Your task to perform on an android device: Go to Android settings Image 0: 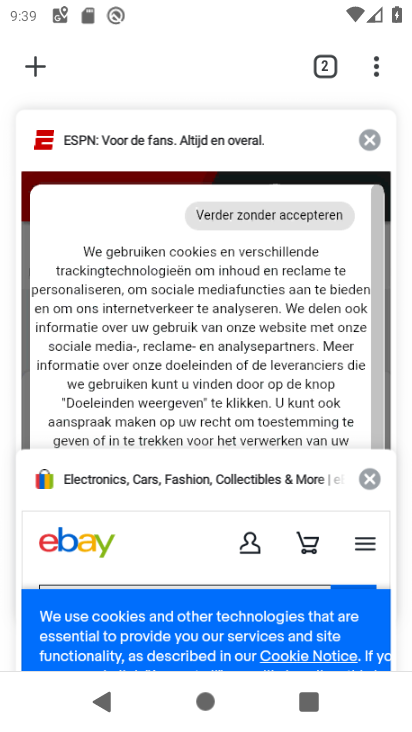
Step 0: press home button
Your task to perform on an android device: Go to Android settings Image 1: 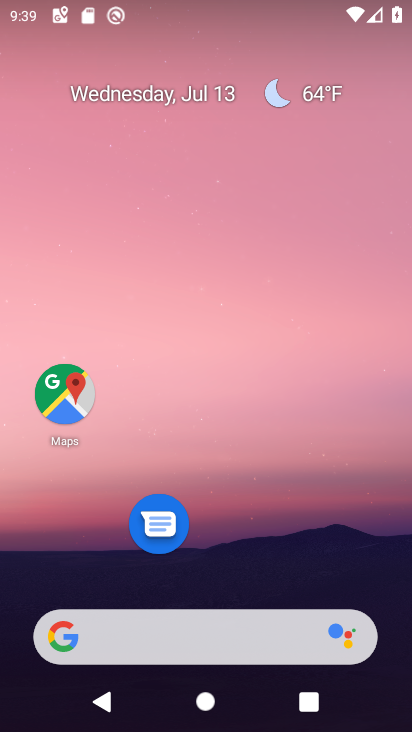
Step 1: drag from (228, 581) to (267, 11)
Your task to perform on an android device: Go to Android settings Image 2: 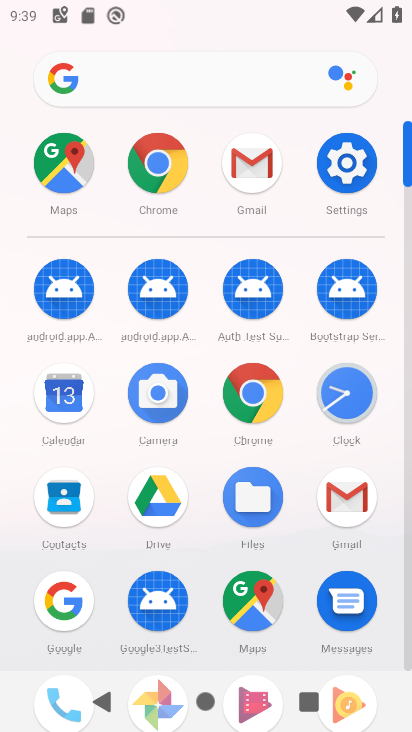
Step 2: click (341, 157)
Your task to perform on an android device: Go to Android settings Image 3: 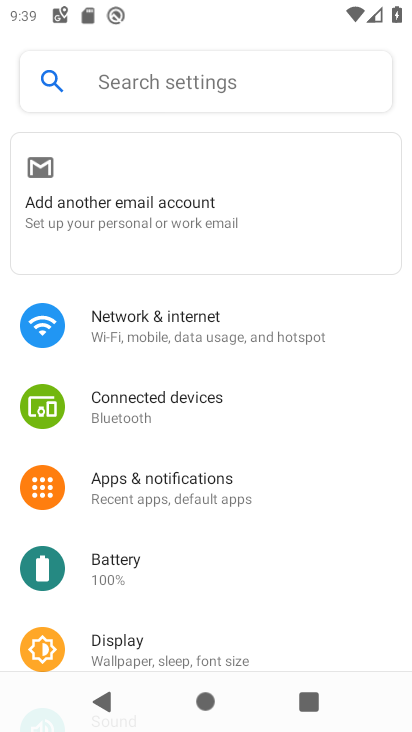
Step 3: task complete